Your task to perform on an android device: find which apps use the phone's location Image 0: 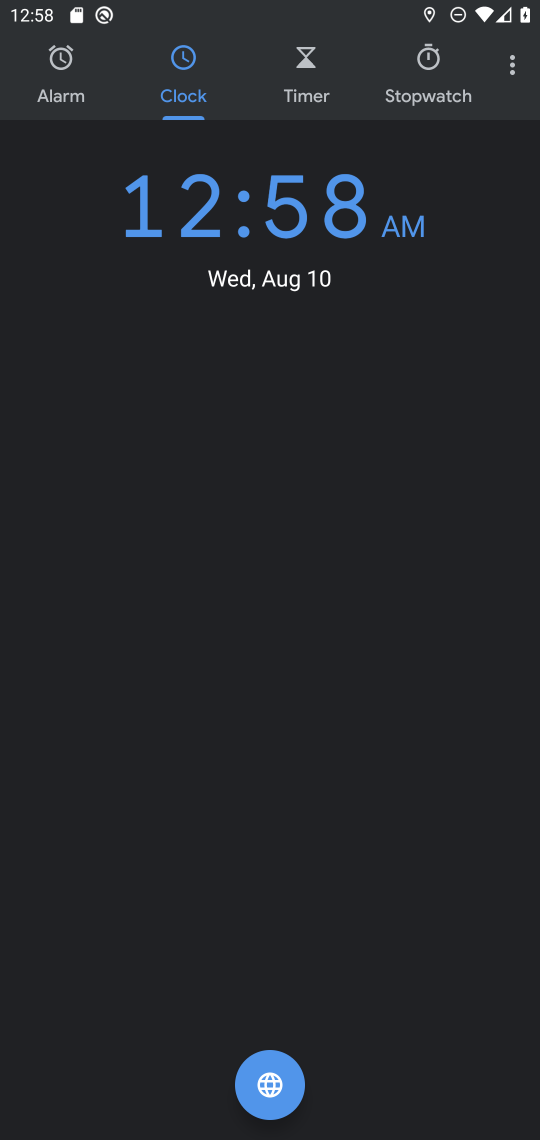
Step 0: press home button
Your task to perform on an android device: find which apps use the phone's location Image 1: 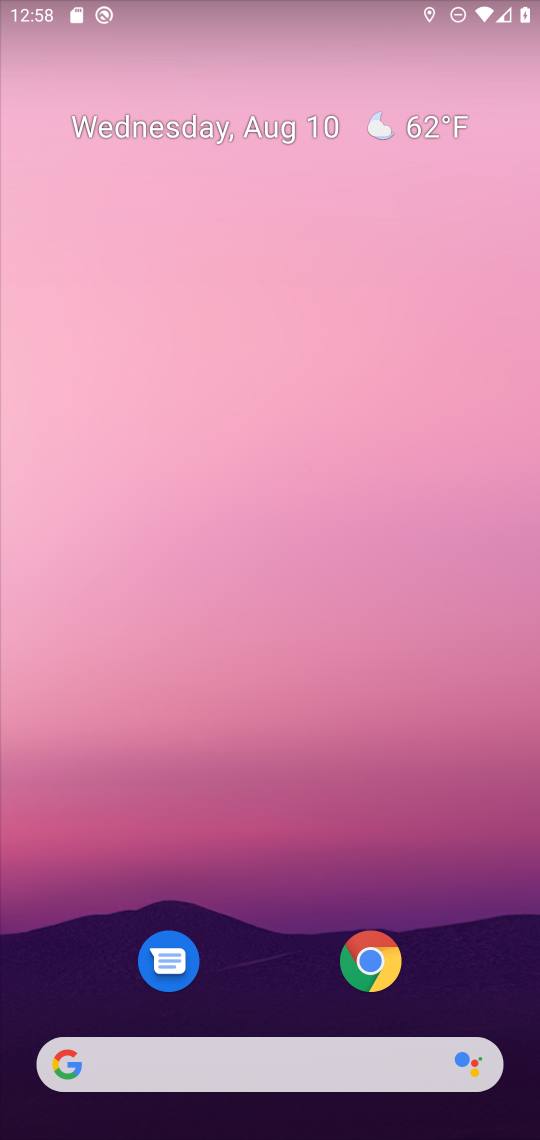
Step 1: drag from (240, 951) to (250, 0)
Your task to perform on an android device: find which apps use the phone's location Image 2: 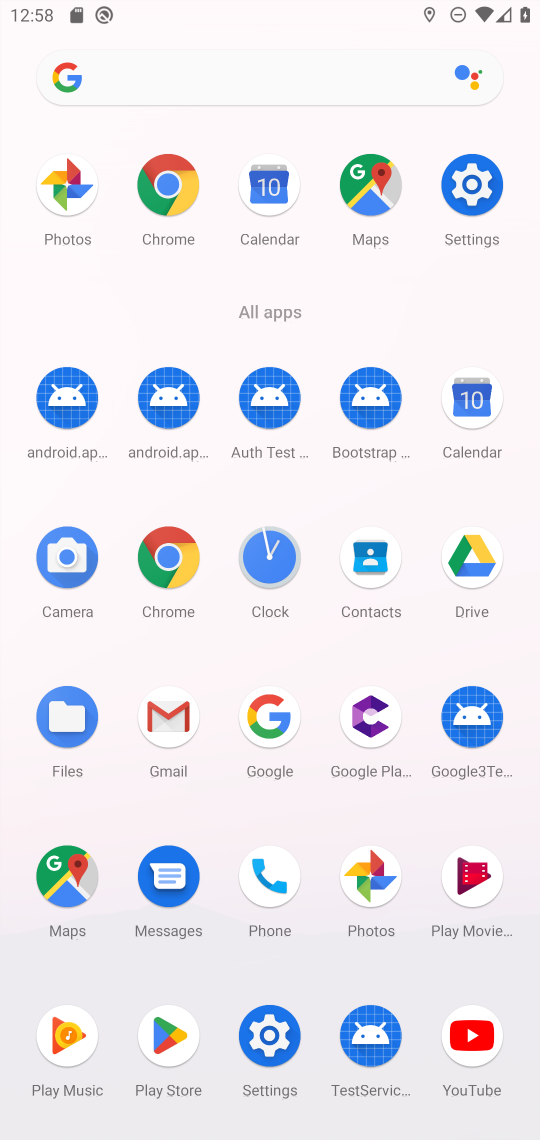
Step 2: click (282, 1050)
Your task to perform on an android device: find which apps use the phone's location Image 3: 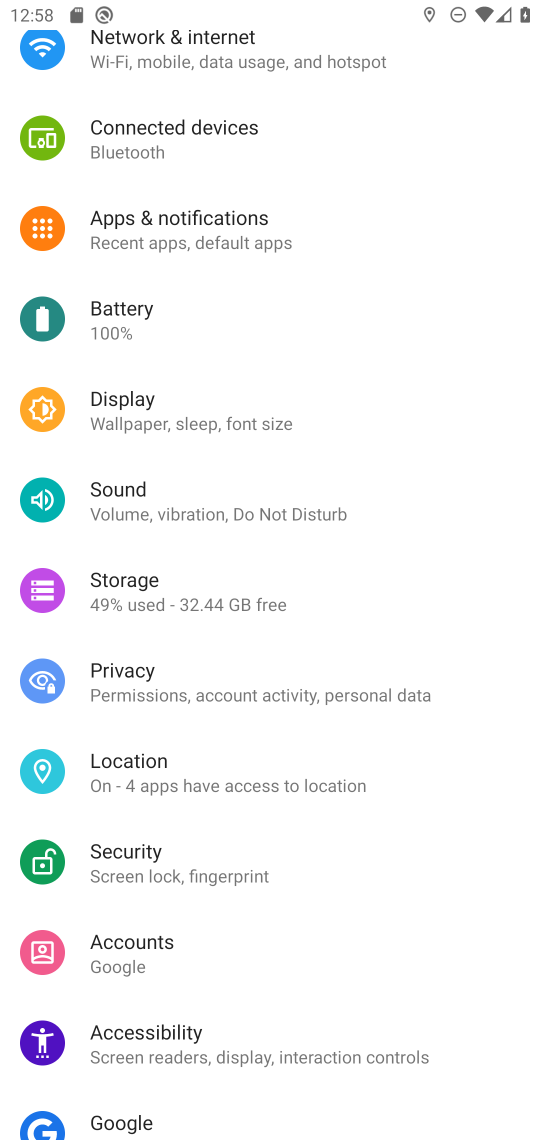
Step 3: click (123, 769)
Your task to perform on an android device: find which apps use the phone's location Image 4: 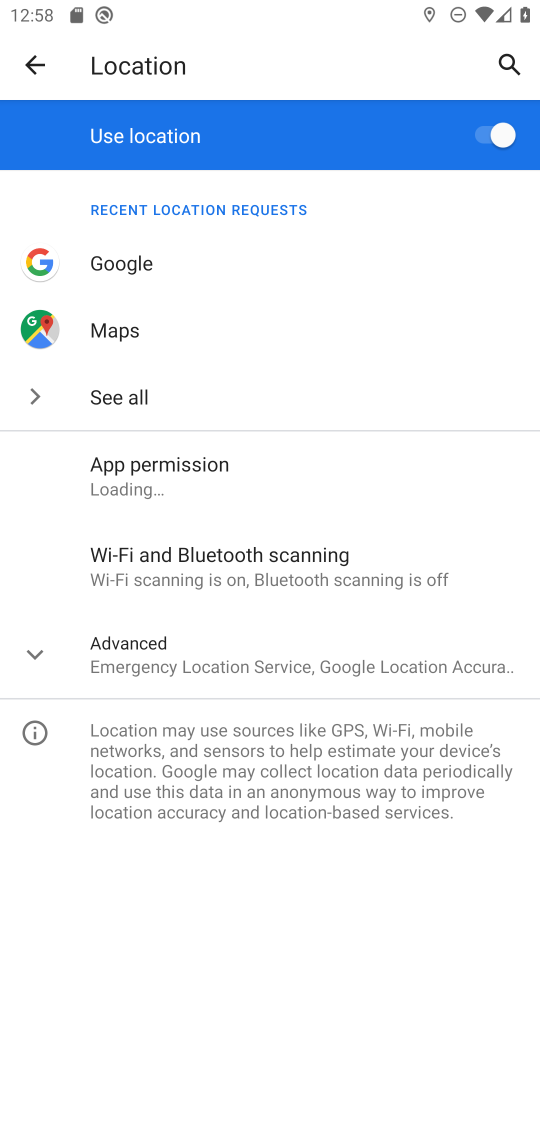
Step 4: click (130, 381)
Your task to perform on an android device: find which apps use the phone's location Image 5: 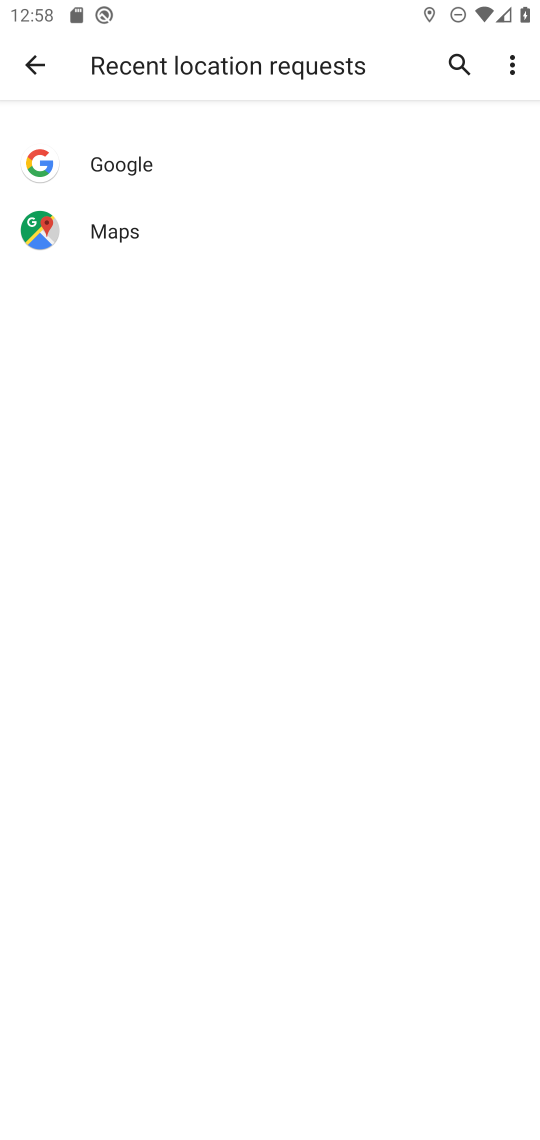
Step 5: task complete